Your task to perform on an android device: View the shopping cart on costco. Search for rayovac triple a on costco, select the first entry, add it to the cart, then select checkout. Image 0: 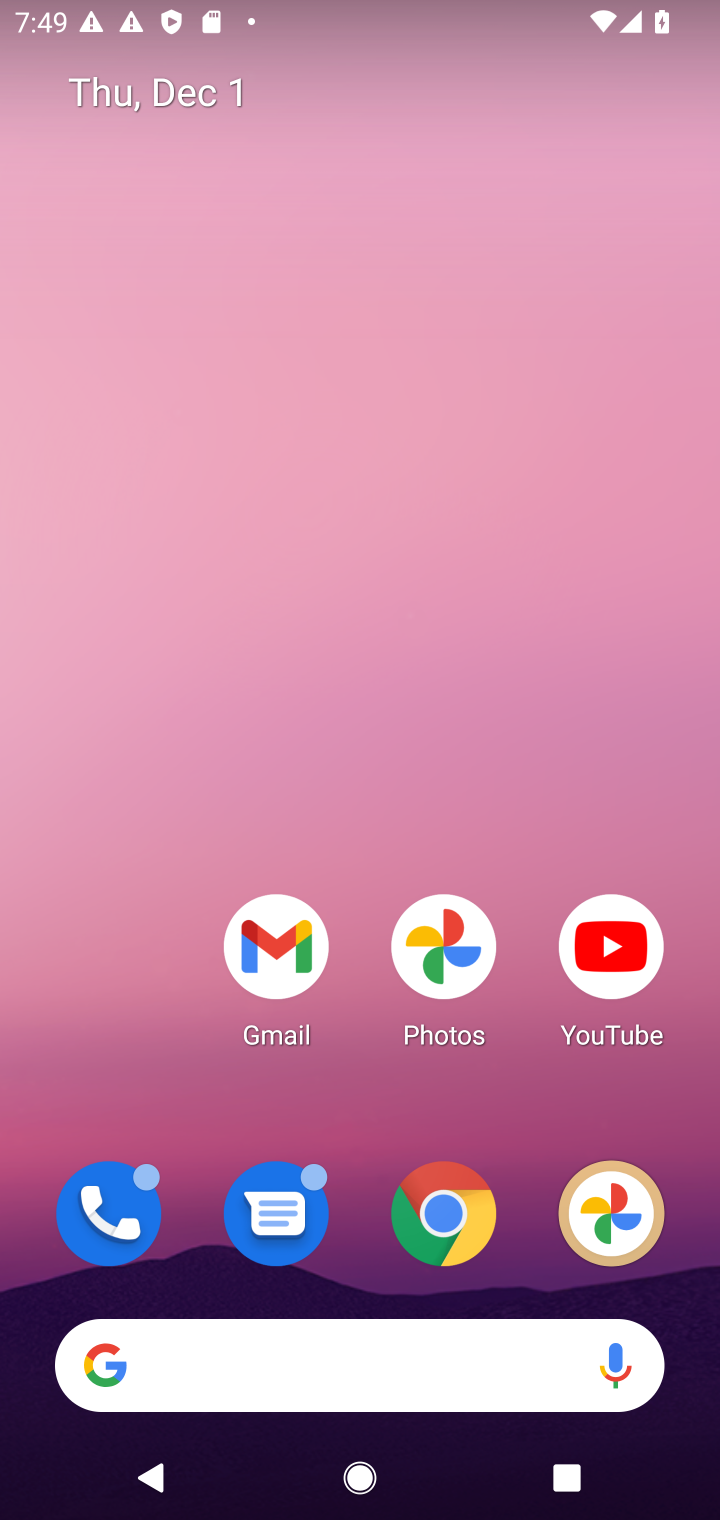
Step 0: drag from (308, 1337) to (308, 655)
Your task to perform on an android device: View the shopping cart on costco. Search for rayovac triple a on costco, select the first entry, add it to the cart, then select checkout. Image 1: 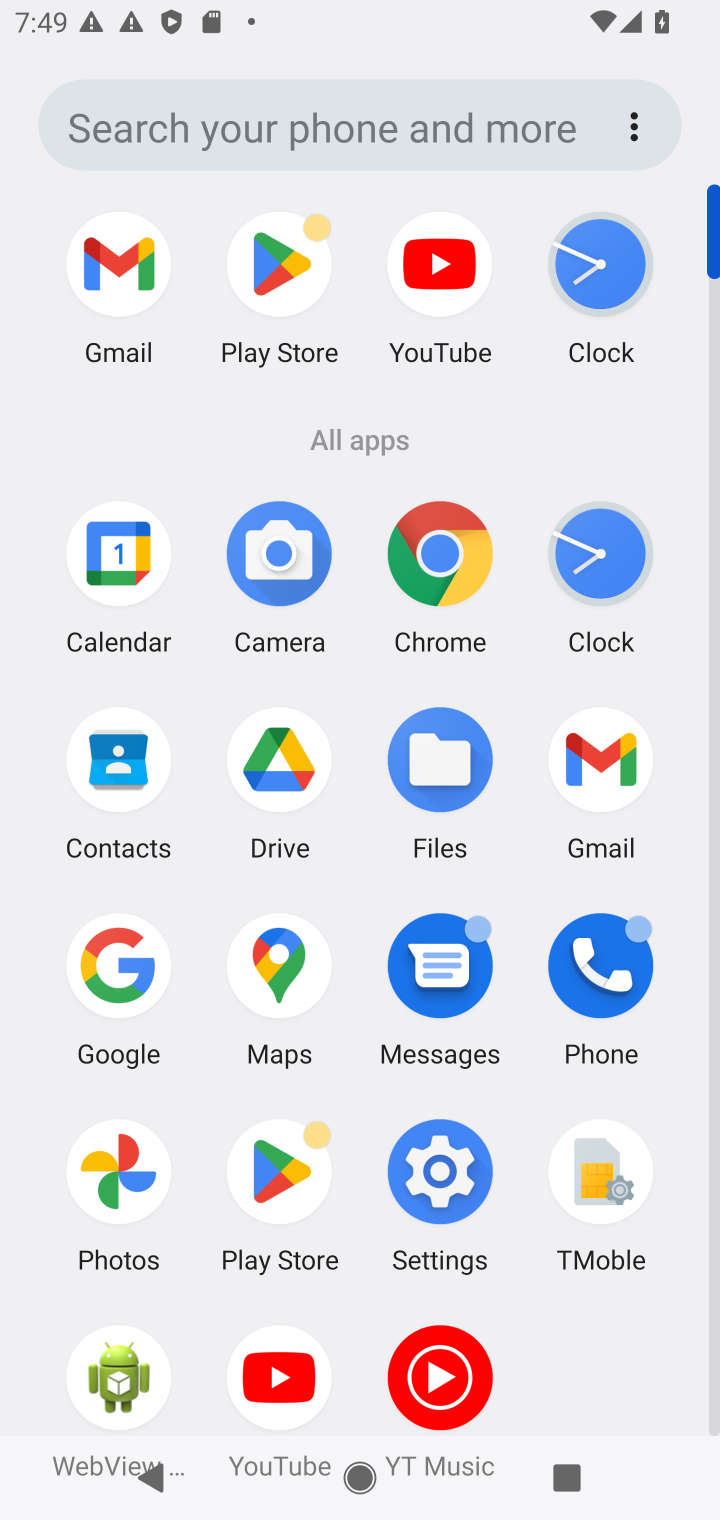
Step 1: click (120, 982)
Your task to perform on an android device: View the shopping cart on costco. Search for rayovac triple a on costco, select the first entry, add it to the cart, then select checkout. Image 2: 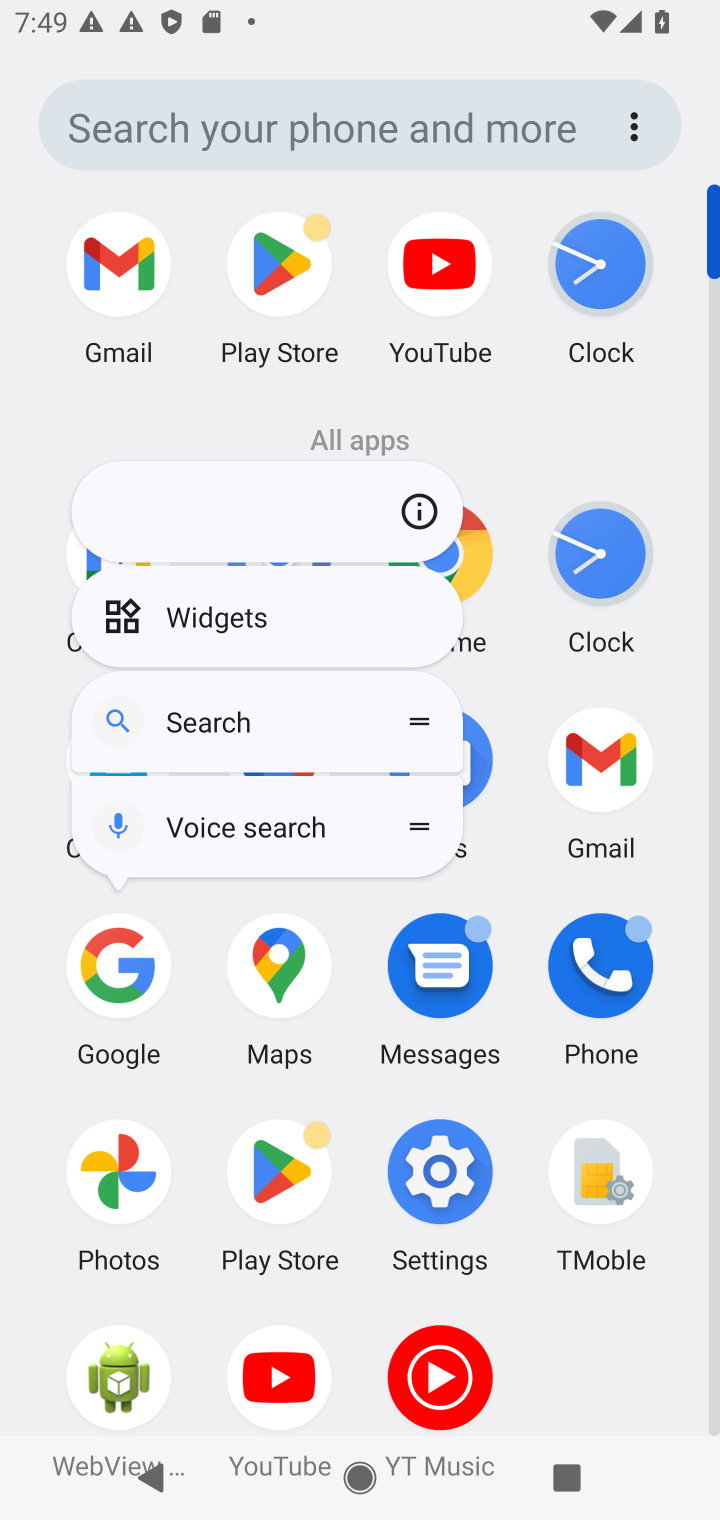
Step 2: click (112, 959)
Your task to perform on an android device: View the shopping cart on costco. Search for rayovac triple a on costco, select the first entry, add it to the cart, then select checkout. Image 3: 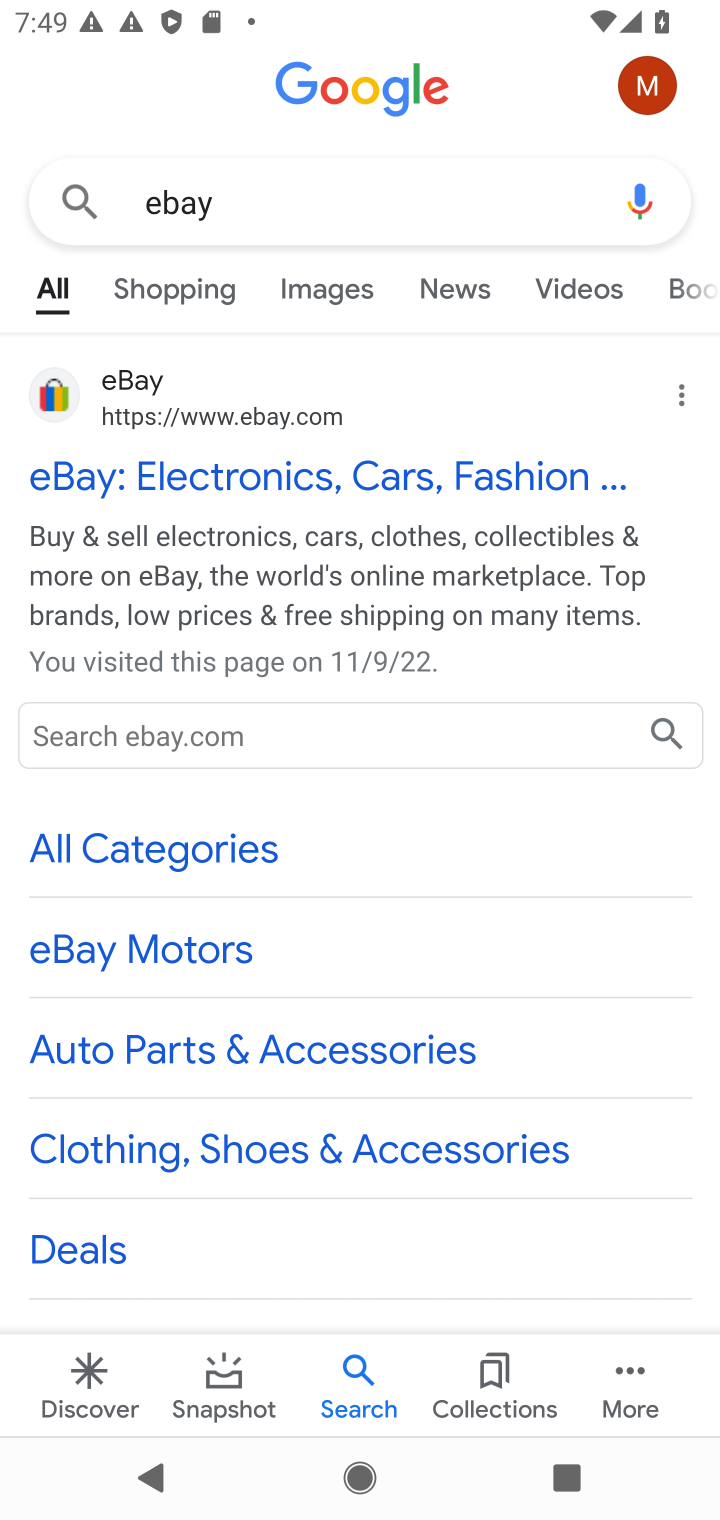
Step 3: click (354, 191)
Your task to perform on an android device: View the shopping cart on costco. Search for rayovac triple a on costco, select the first entry, add it to the cart, then select checkout. Image 4: 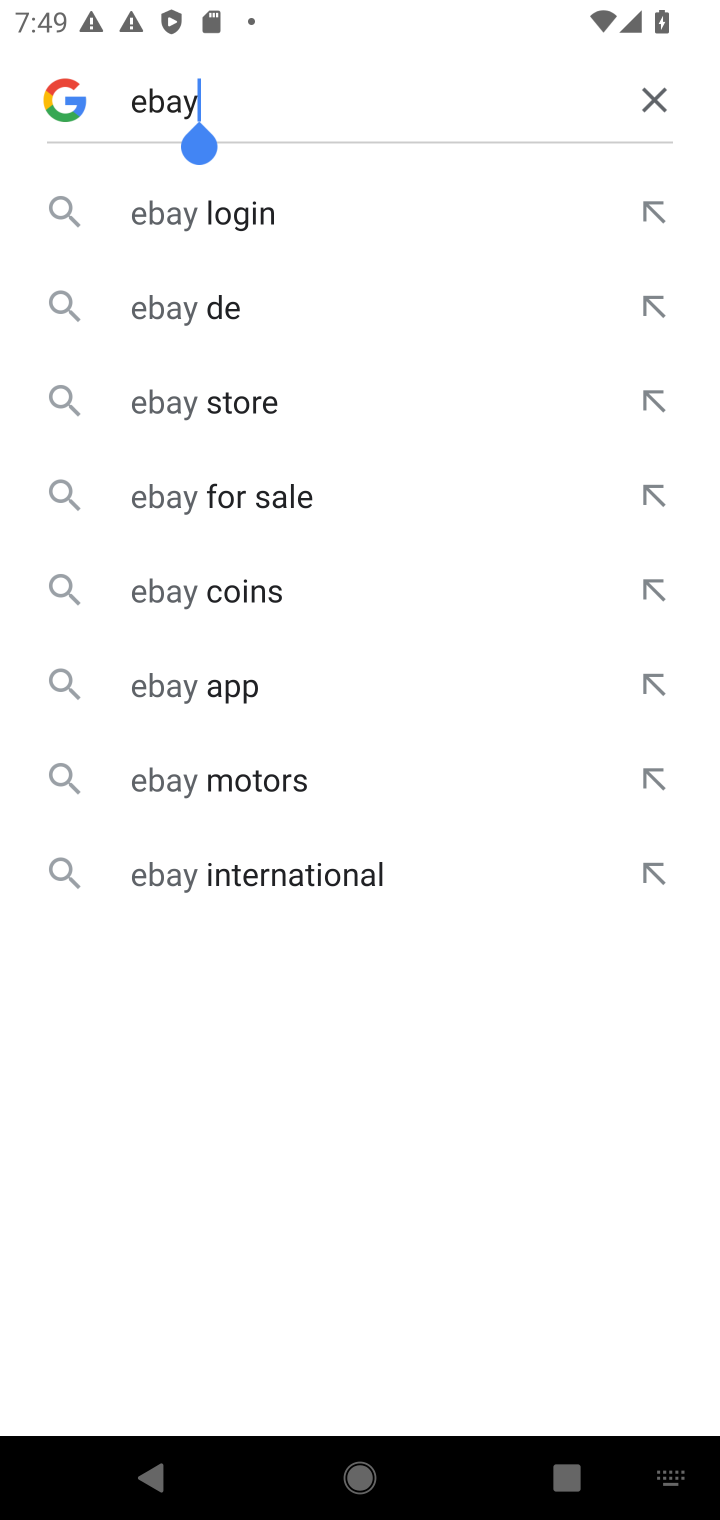
Step 4: click (662, 95)
Your task to perform on an android device: View the shopping cart on costco. Search for rayovac triple a on costco, select the first entry, add it to the cart, then select checkout. Image 5: 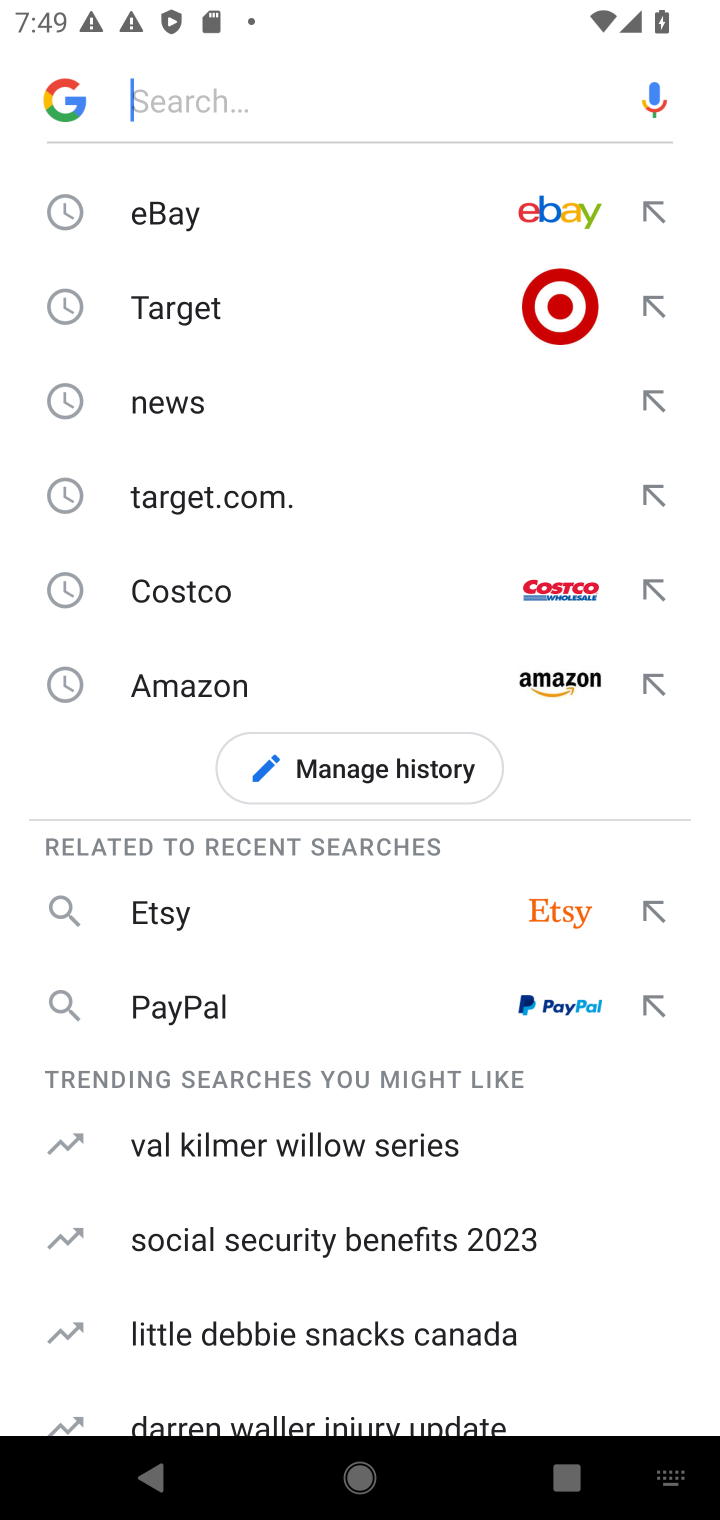
Step 5: click (196, 583)
Your task to perform on an android device: View the shopping cart on costco. Search for rayovac triple a on costco, select the first entry, add it to the cart, then select checkout. Image 6: 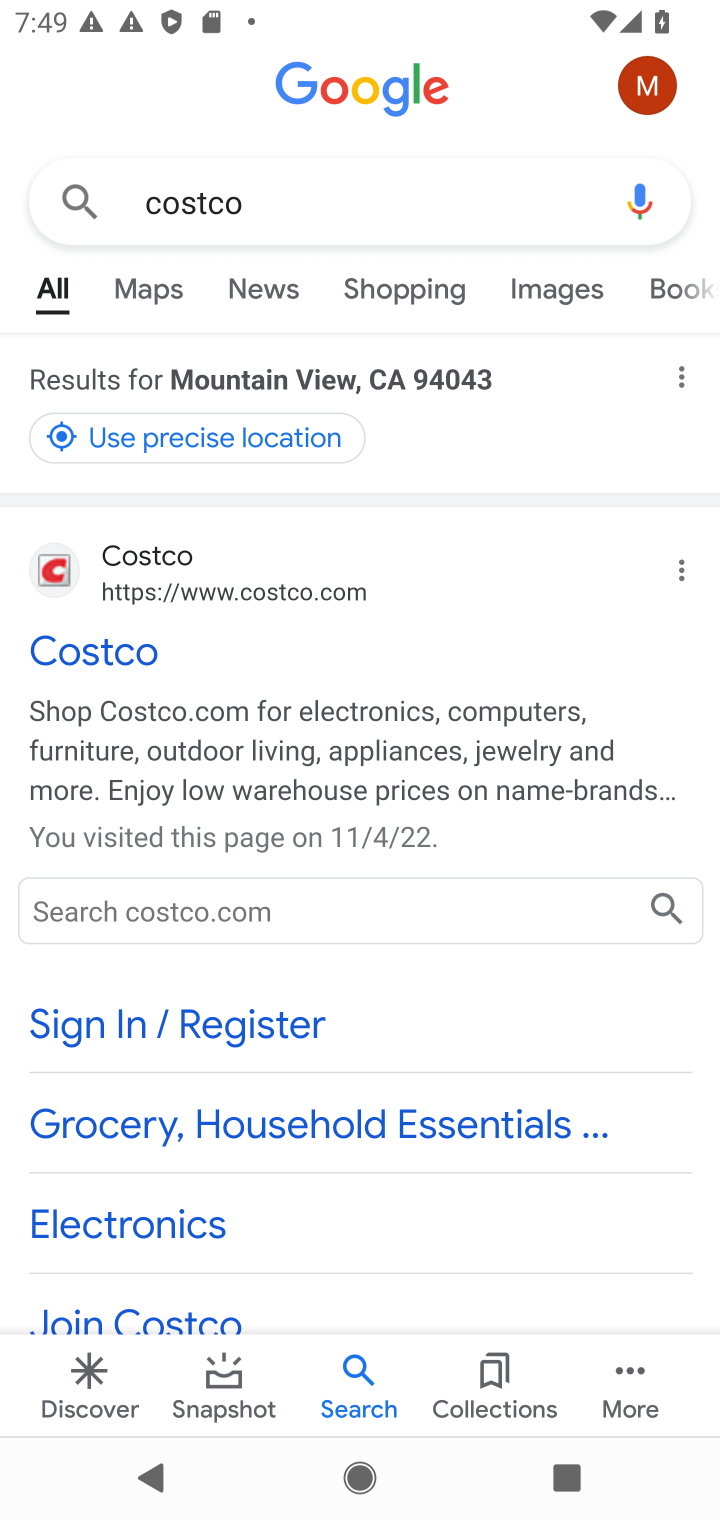
Step 6: click (117, 640)
Your task to perform on an android device: View the shopping cart on costco. Search for rayovac triple a on costco, select the first entry, add it to the cart, then select checkout. Image 7: 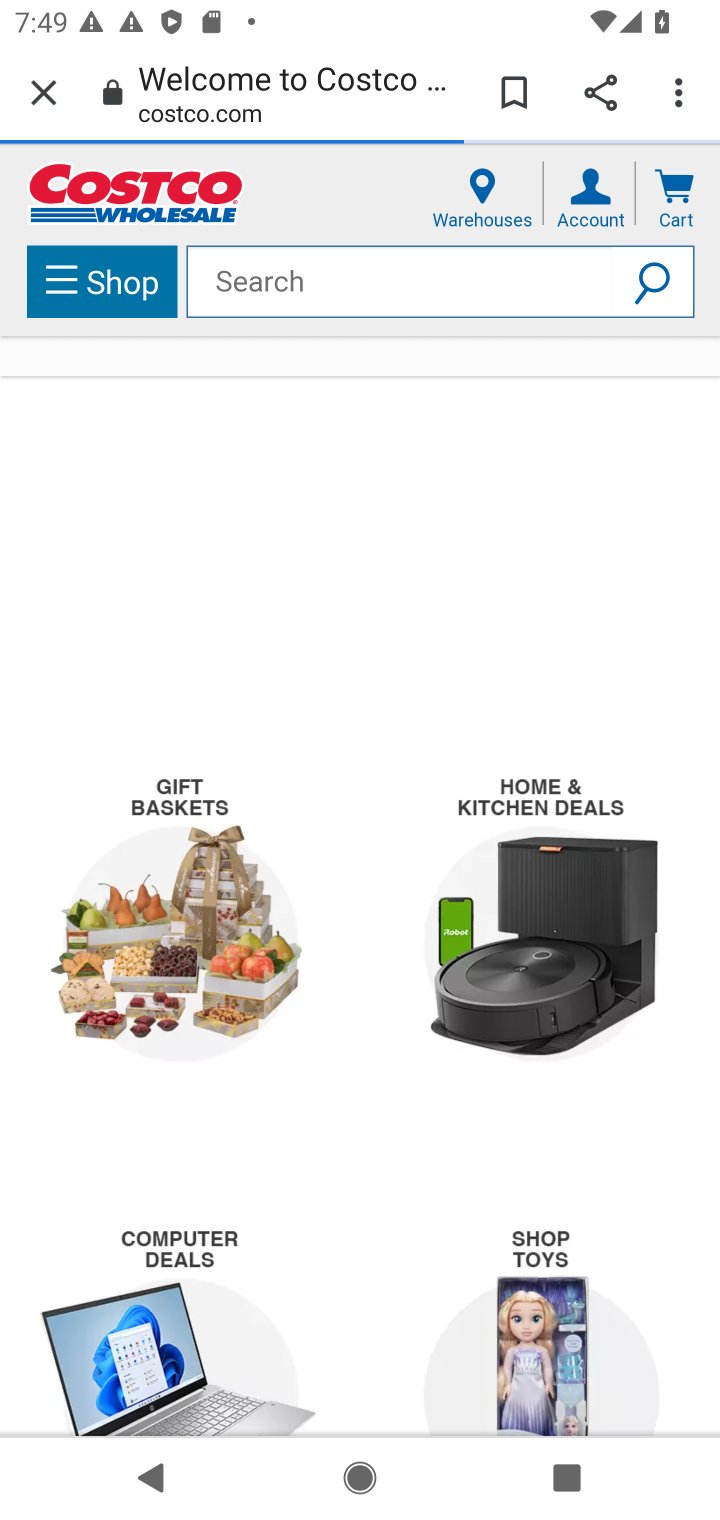
Step 7: click (328, 292)
Your task to perform on an android device: View the shopping cart on costco. Search for rayovac triple a on costco, select the first entry, add it to the cart, then select checkout. Image 8: 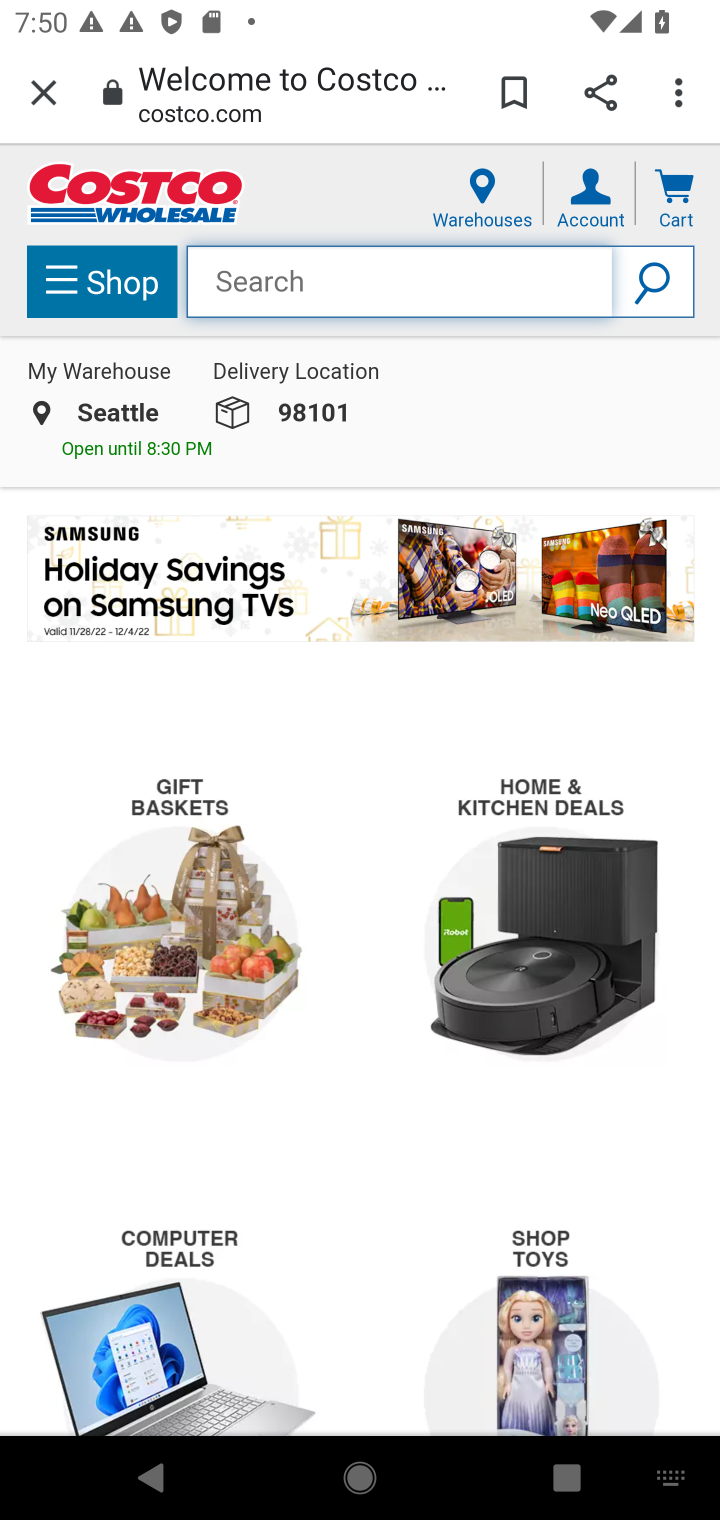
Step 8: type " rayovac triple a"
Your task to perform on an android device: View the shopping cart on costco. Search for rayovac triple a on costco, select the first entry, add it to the cart, then select checkout. Image 9: 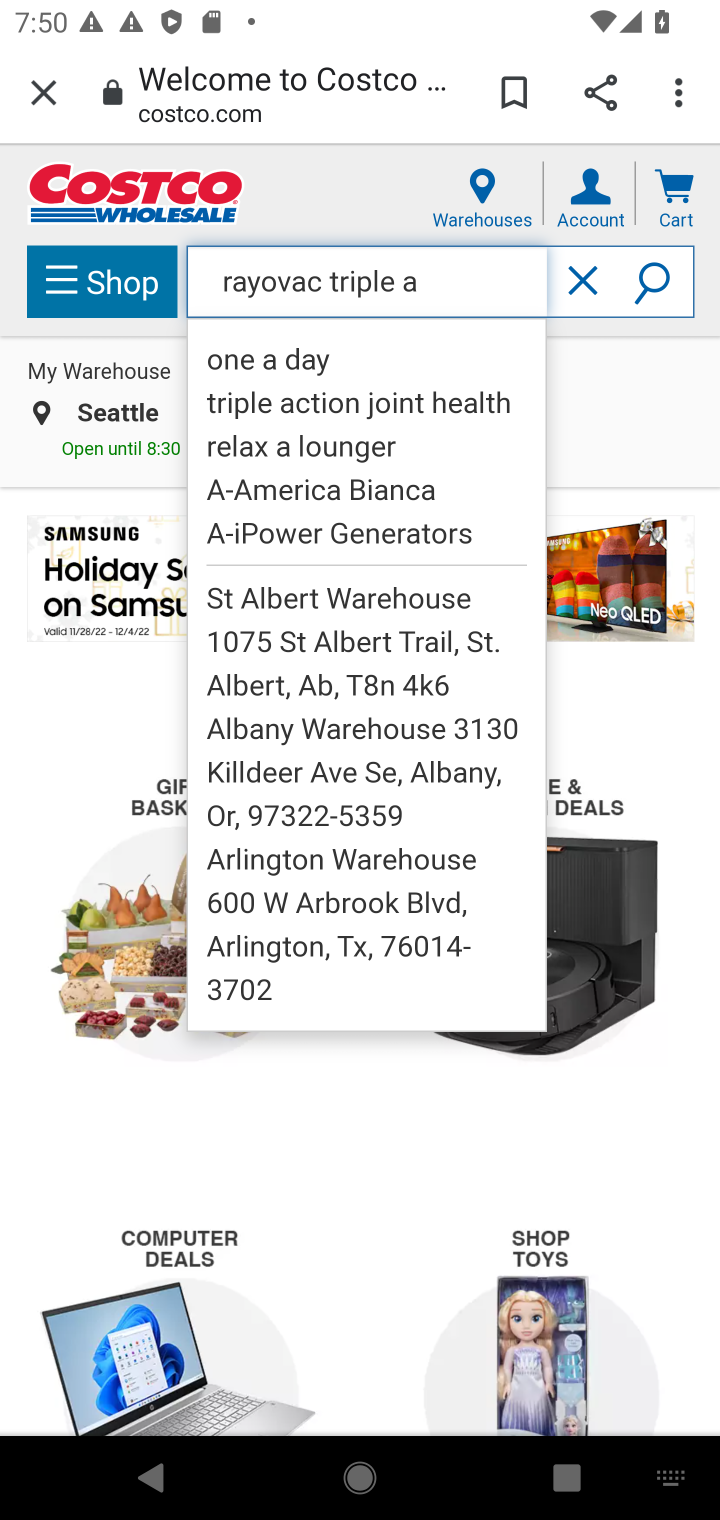
Step 9: click (26, 703)
Your task to perform on an android device: View the shopping cart on costco. Search for rayovac triple a on costco, select the first entry, add it to the cart, then select checkout. Image 10: 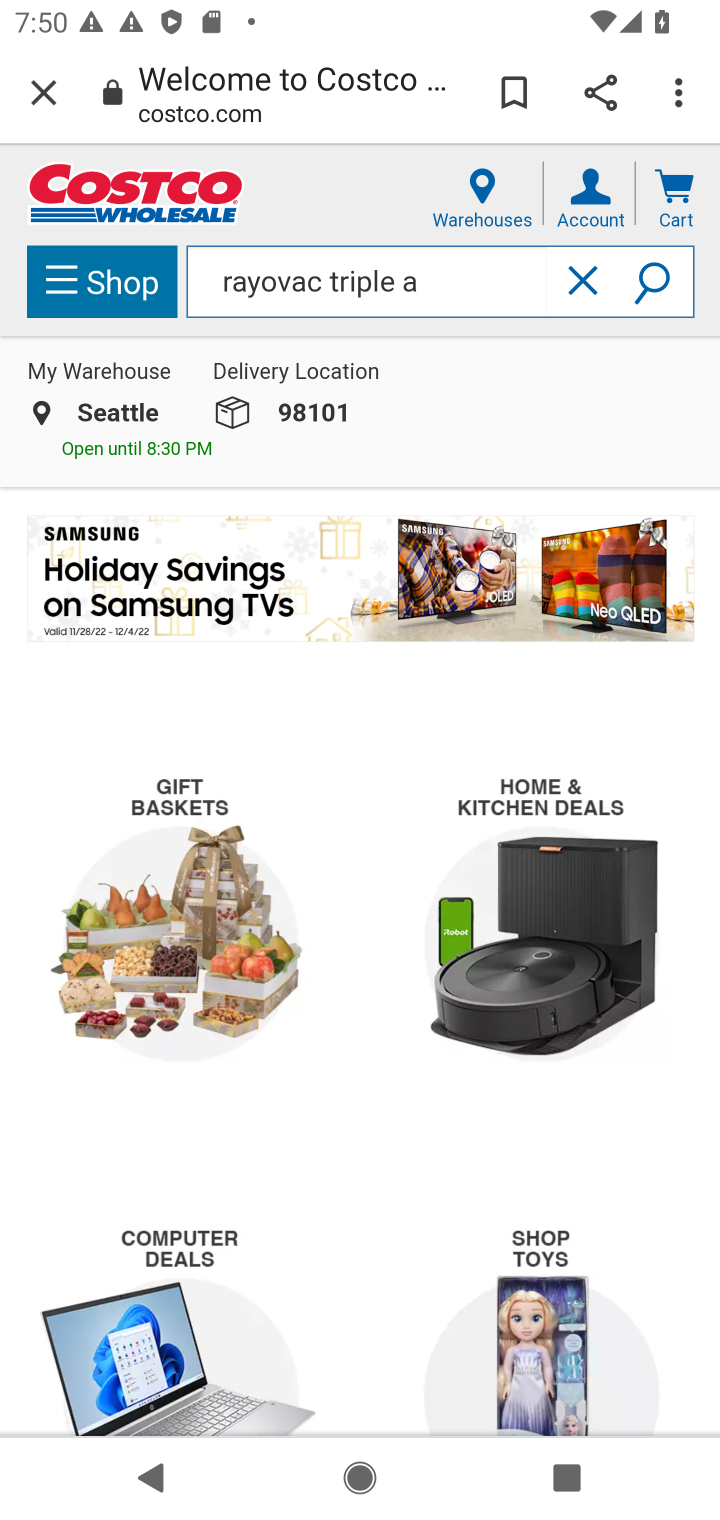
Step 10: click (660, 269)
Your task to perform on an android device: View the shopping cart on costco. Search for rayovac triple a on costco, select the first entry, add it to the cart, then select checkout. Image 11: 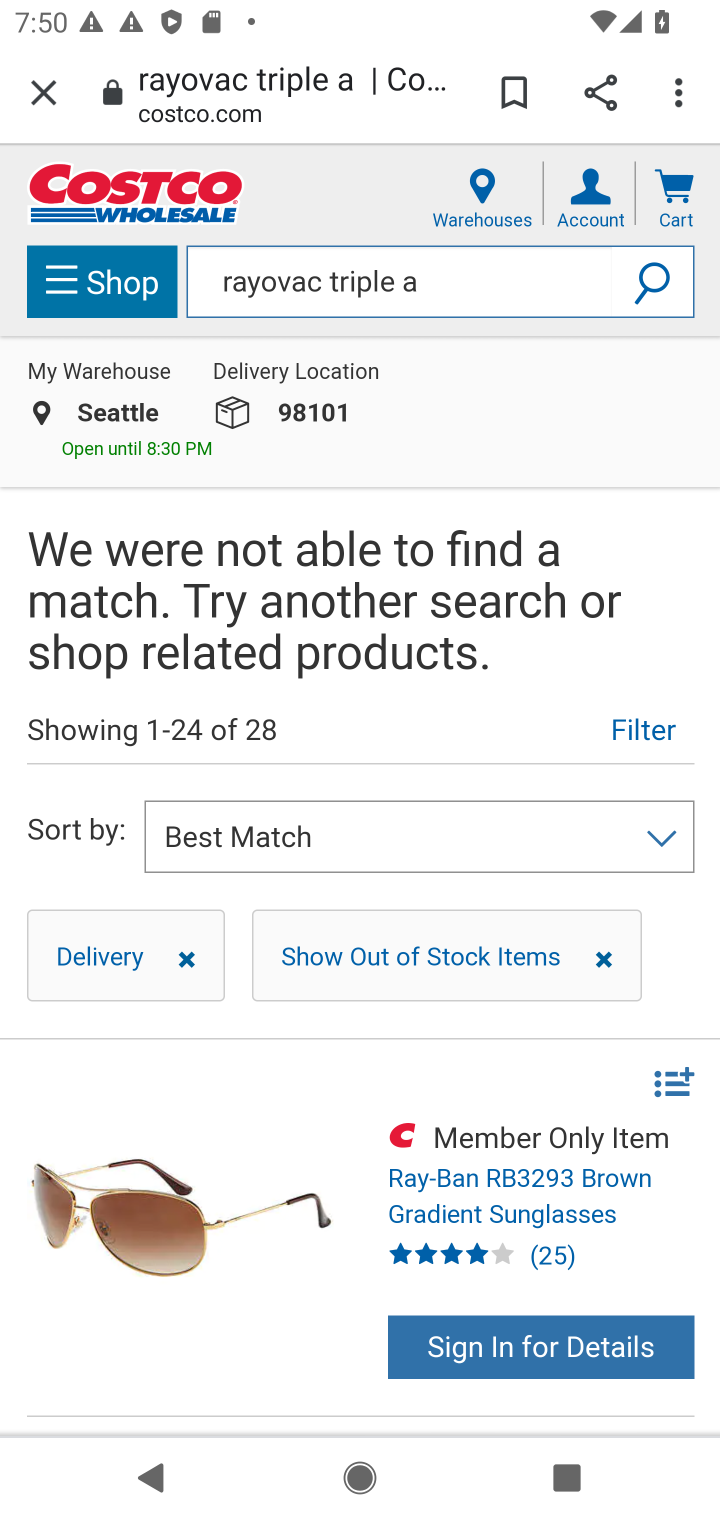
Step 11: task complete